Your task to perform on an android device: turn on the 24-hour format for clock Image 0: 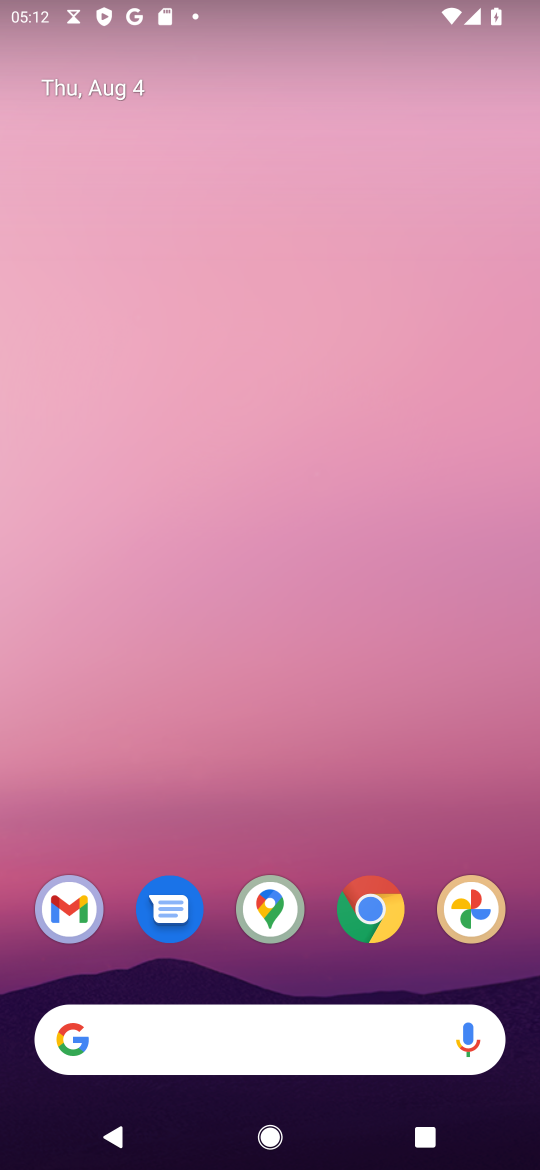
Step 0: drag from (318, 976) to (468, 239)
Your task to perform on an android device: turn on the 24-hour format for clock Image 1: 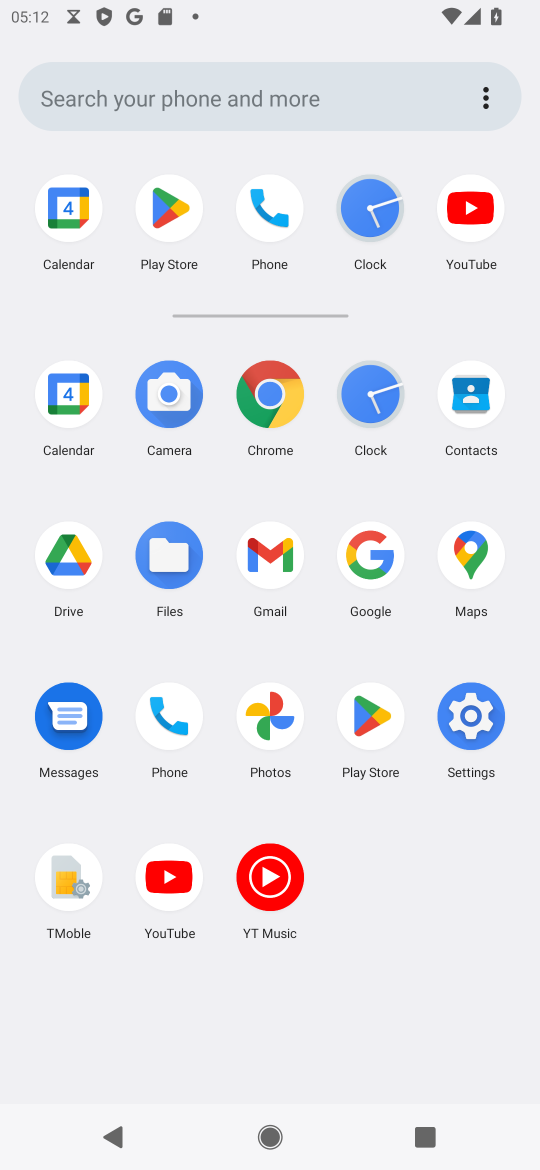
Step 1: click (369, 397)
Your task to perform on an android device: turn on the 24-hour format for clock Image 2: 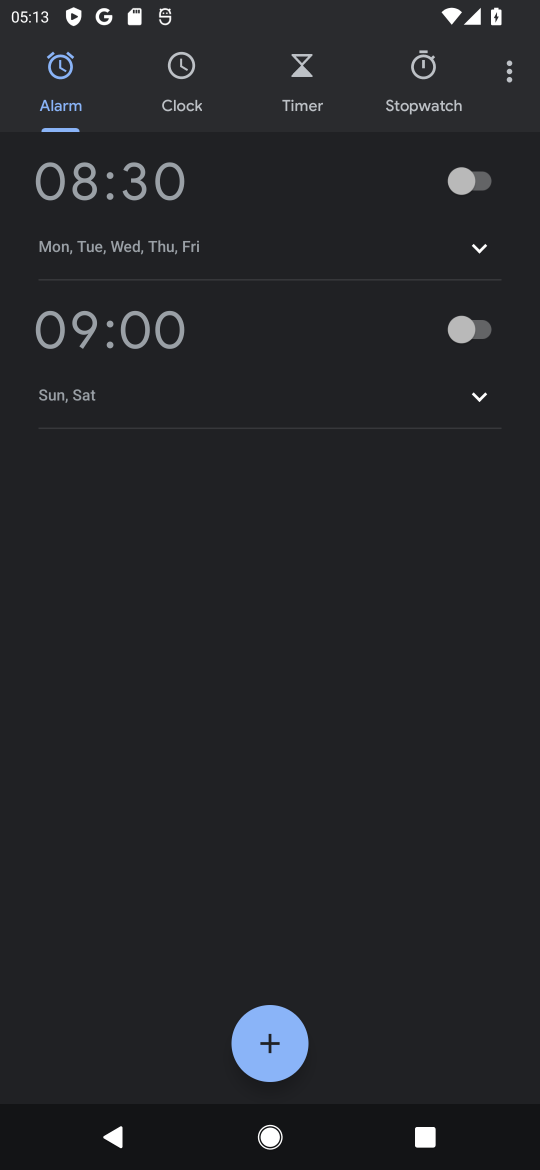
Step 2: click (504, 80)
Your task to perform on an android device: turn on the 24-hour format for clock Image 3: 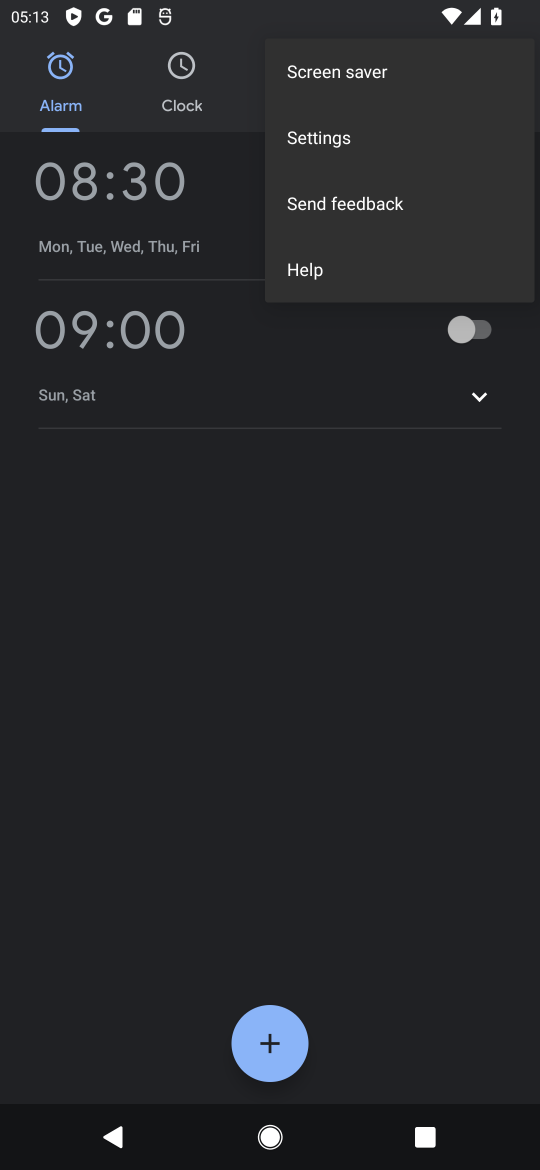
Step 3: click (316, 139)
Your task to perform on an android device: turn on the 24-hour format for clock Image 4: 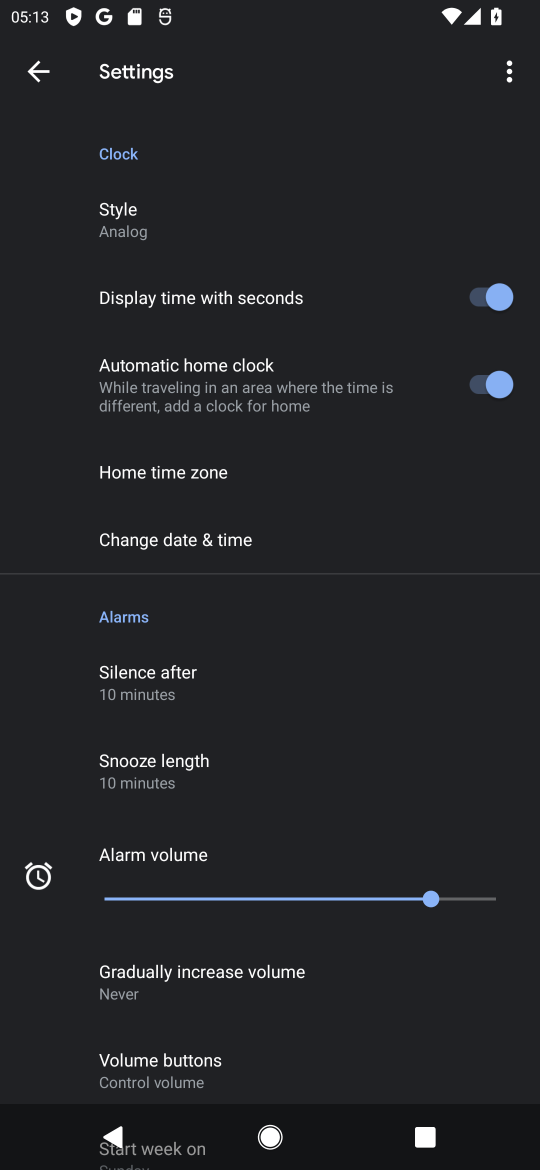
Step 4: click (195, 530)
Your task to perform on an android device: turn on the 24-hour format for clock Image 5: 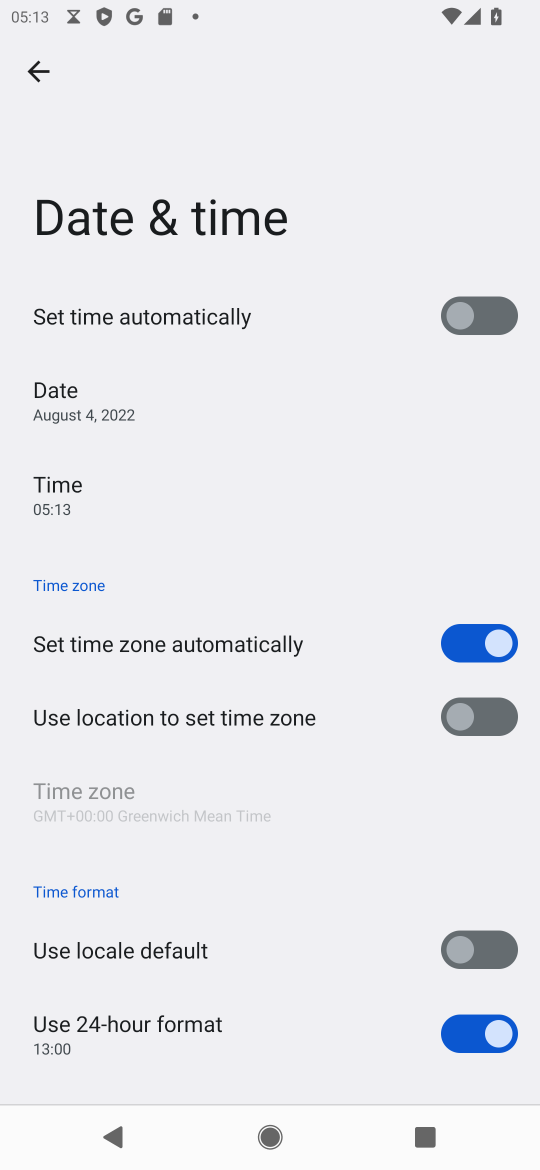
Step 5: task complete